Your task to perform on an android device: toggle airplane mode Image 0: 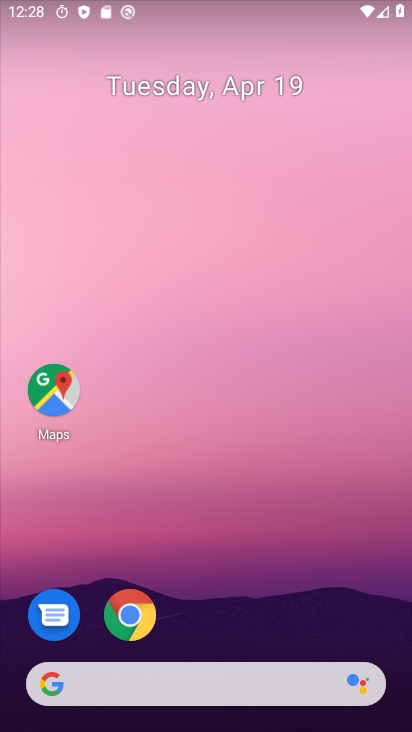
Step 0: drag from (377, 608) to (348, 23)
Your task to perform on an android device: toggle airplane mode Image 1: 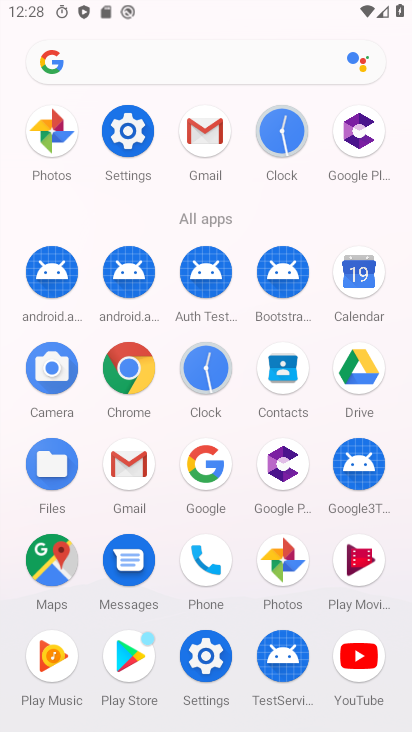
Step 1: click (136, 140)
Your task to perform on an android device: toggle airplane mode Image 2: 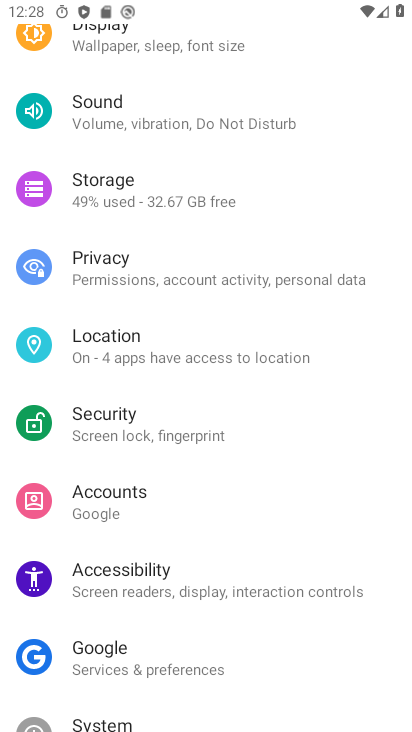
Step 2: drag from (370, 207) to (378, 415)
Your task to perform on an android device: toggle airplane mode Image 3: 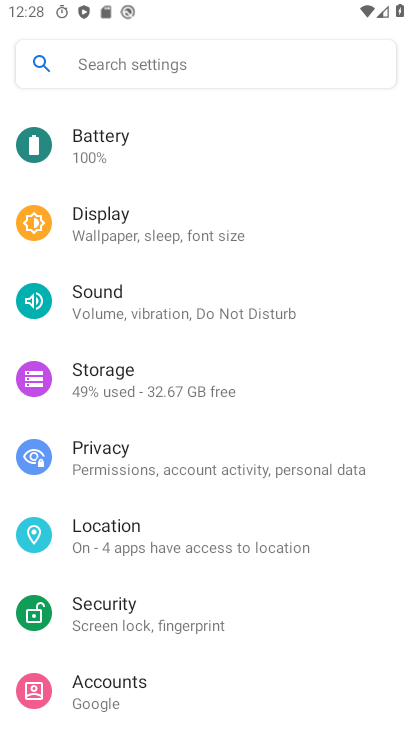
Step 3: drag from (370, 183) to (365, 381)
Your task to perform on an android device: toggle airplane mode Image 4: 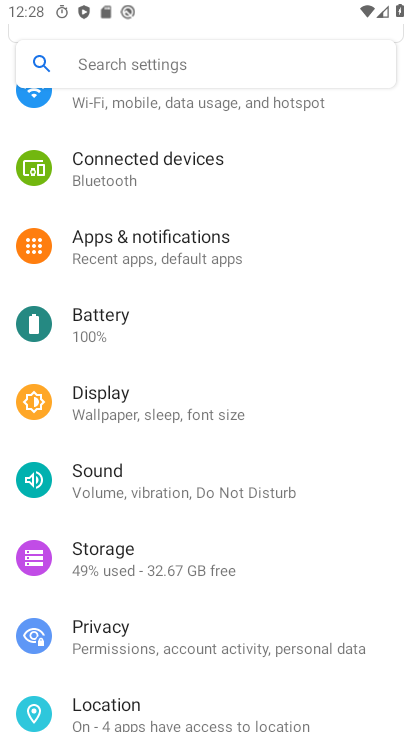
Step 4: drag from (346, 158) to (340, 379)
Your task to perform on an android device: toggle airplane mode Image 5: 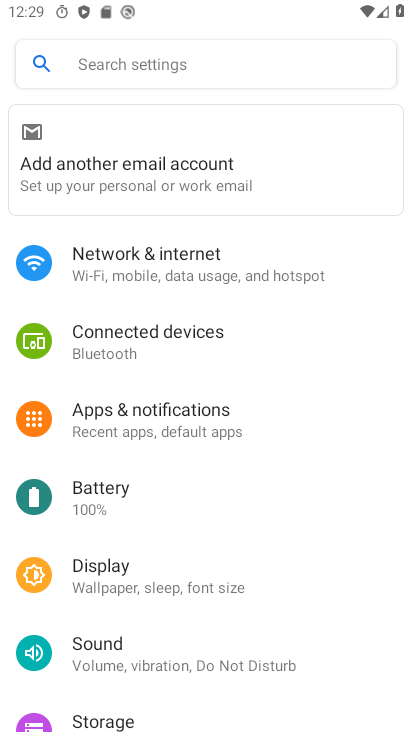
Step 5: click (224, 271)
Your task to perform on an android device: toggle airplane mode Image 6: 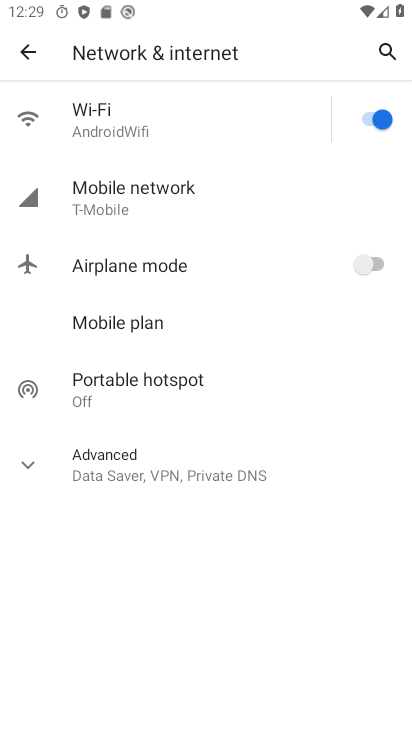
Step 6: click (361, 264)
Your task to perform on an android device: toggle airplane mode Image 7: 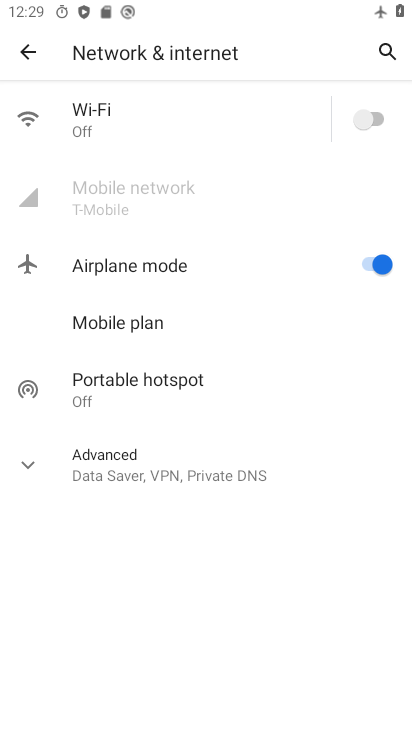
Step 7: task complete